Your task to perform on an android device: Open location settings Image 0: 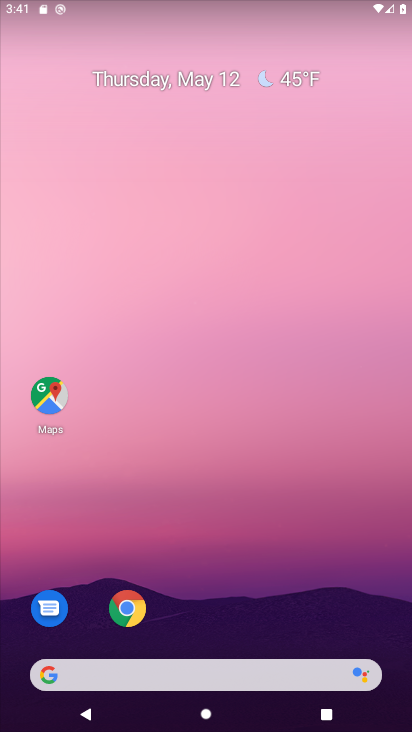
Step 0: drag from (261, 548) to (260, 28)
Your task to perform on an android device: Open location settings Image 1: 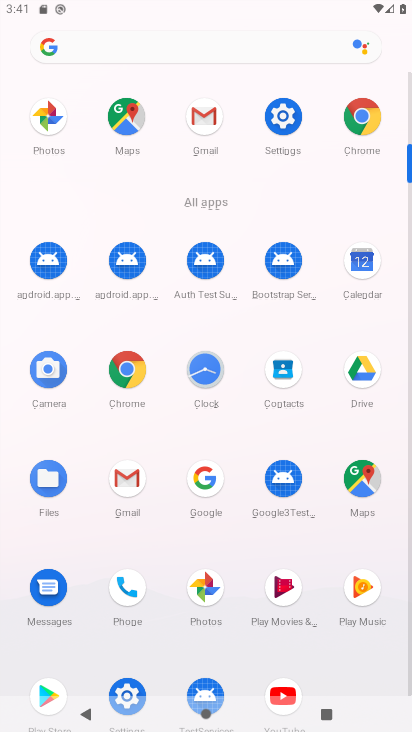
Step 1: click (278, 115)
Your task to perform on an android device: Open location settings Image 2: 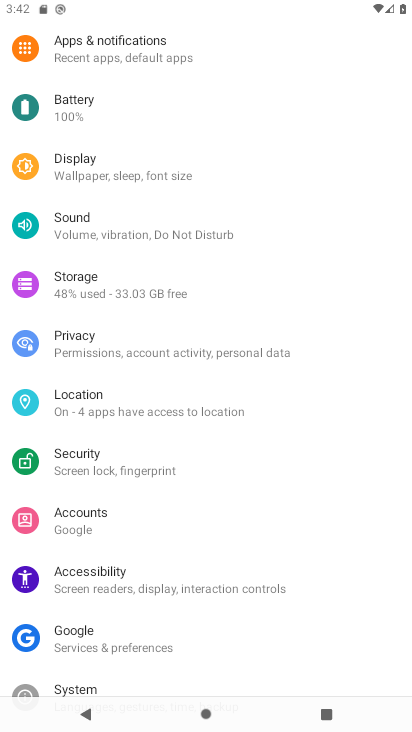
Step 2: click (145, 401)
Your task to perform on an android device: Open location settings Image 3: 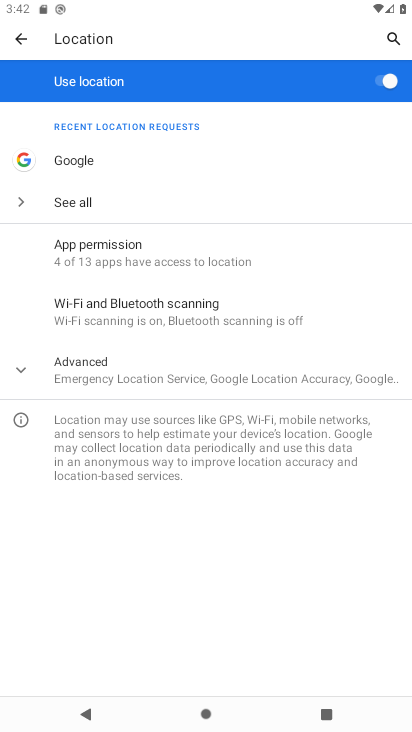
Step 3: task complete